Your task to perform on an android device: Search for the ikea billy bookcase Image 0: 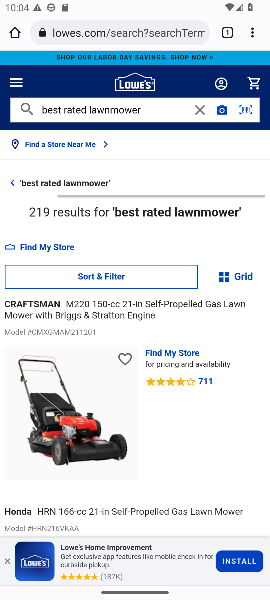
Step 0: click (110, 32)
Your task to perform on an android device: Search for the ikea billy bookcase Image 1: 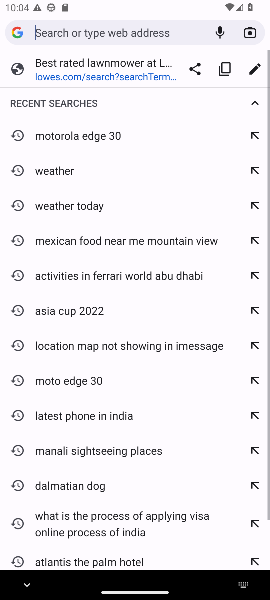
Step 1: type " ikea billy bookcase"
Your task to perform on an android device: Search for the ikea billy bookcase Image 2: 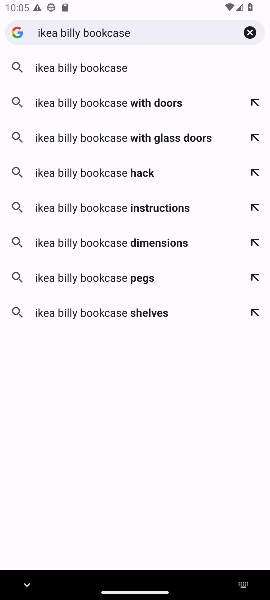
Step 2: click (89, 68)
Your task to perform on an android device: Search for the ikea billy bookcase Image 3: 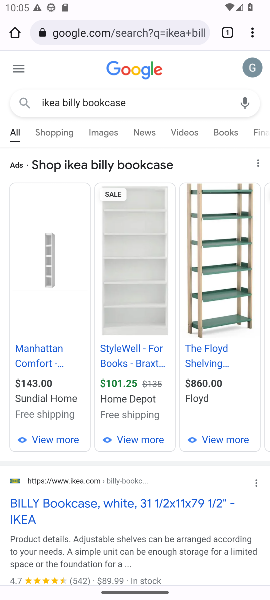
Step 3: task complete